Your task to perform on an android device: Open Google Chrome and open the bookmarks view Image 0: 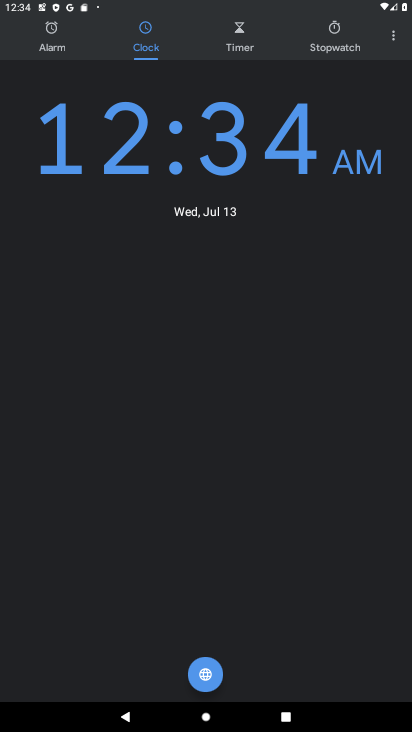
Step 0: press home button
Your task to perform on an android device: Open Google Chrome and open the bookmarks view Image 1: 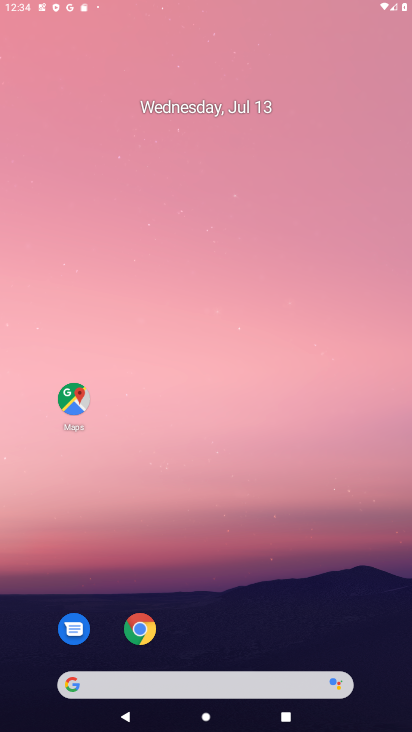
Step 1: drag from (285, 643) to (269, 361)
Your task to perform on an android device: Open Google Chrome and open the bookmarks view Image 2: 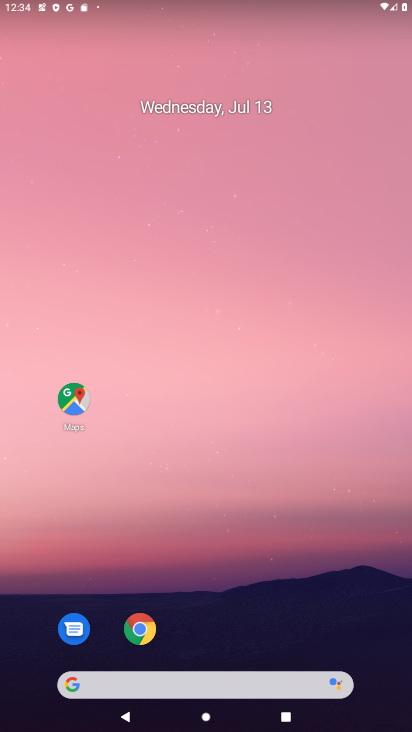
Step 2: click (147, 624)
Your task to perform on an android device: Open Google Chrome and open the bookmarks view Image 3: 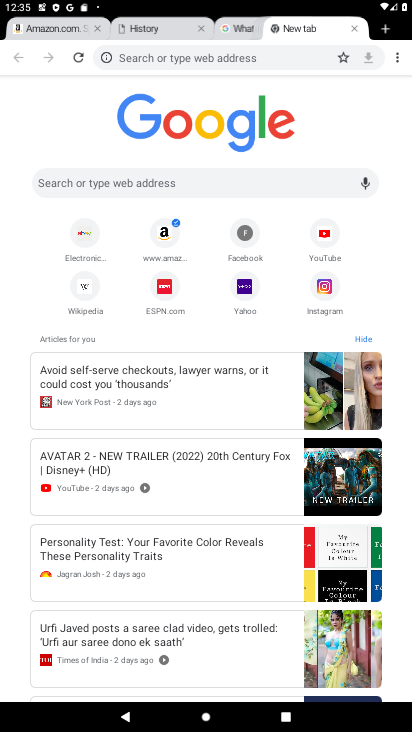
Step 3: click (398, 59)
Your task to perform on an android device: Open Google Chrome and open the bookmarks view Image 4: 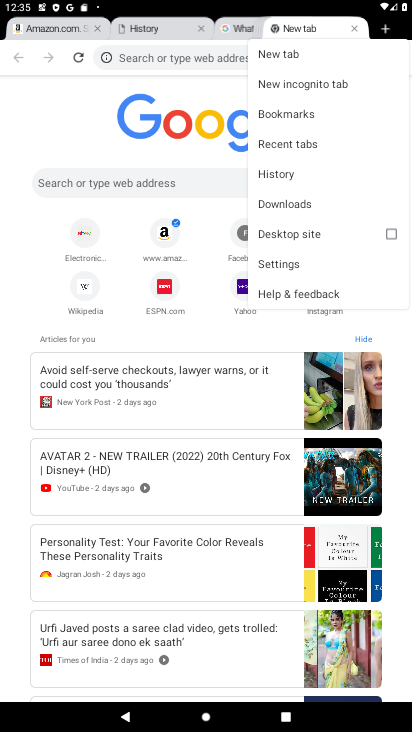
Step 4: click (290, 114)
Your task to perform on an android device: Open Google Chrome and open the bookmarks view Image 5: 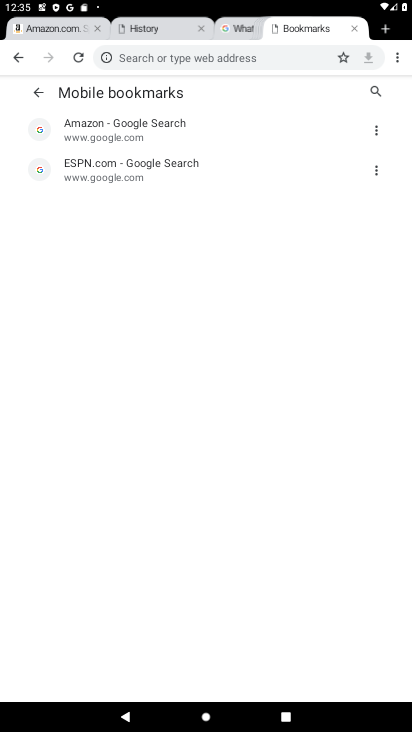
Step 5: task complete